Your task to perform on an android device: Is it going to rain this weekend? Image 0: 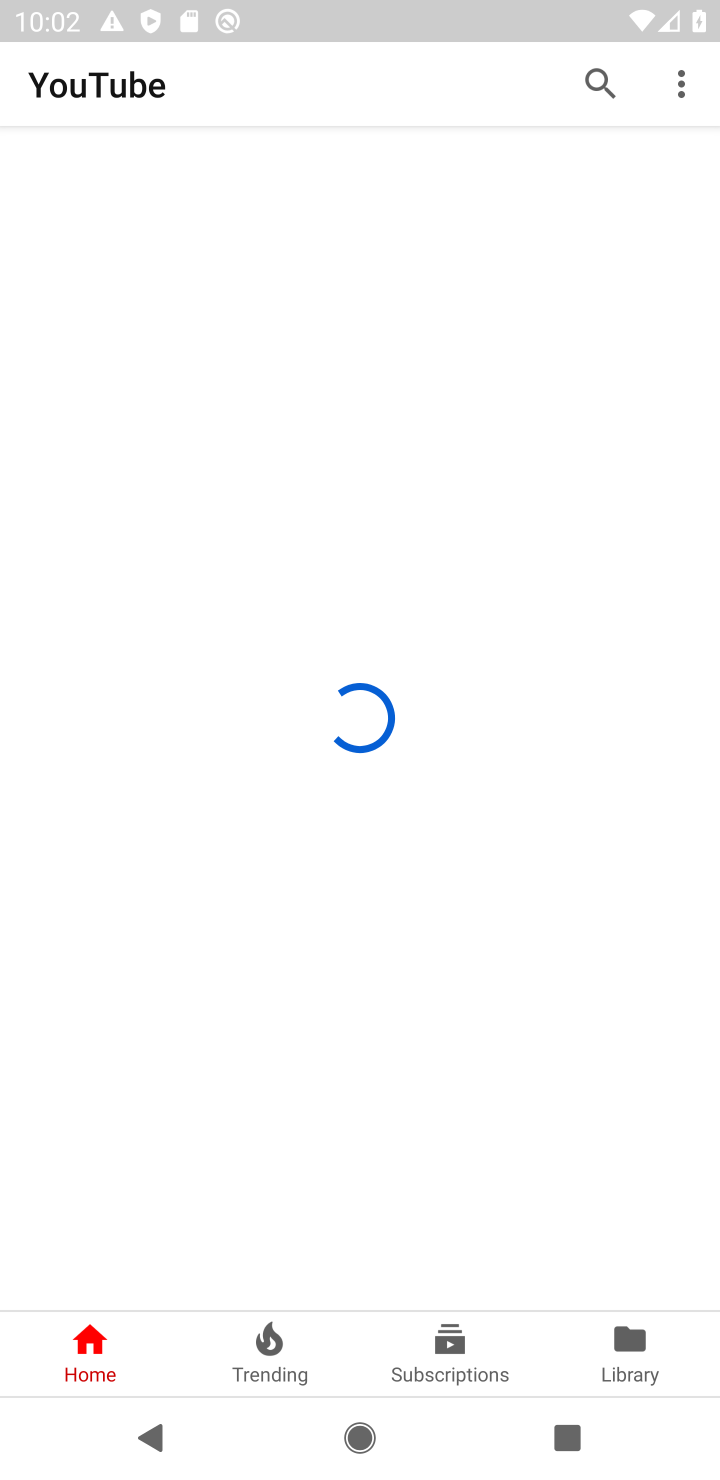
Step 0: press home button
Your task to perform on an android device: Is it going to rain this weekend? Image 1: 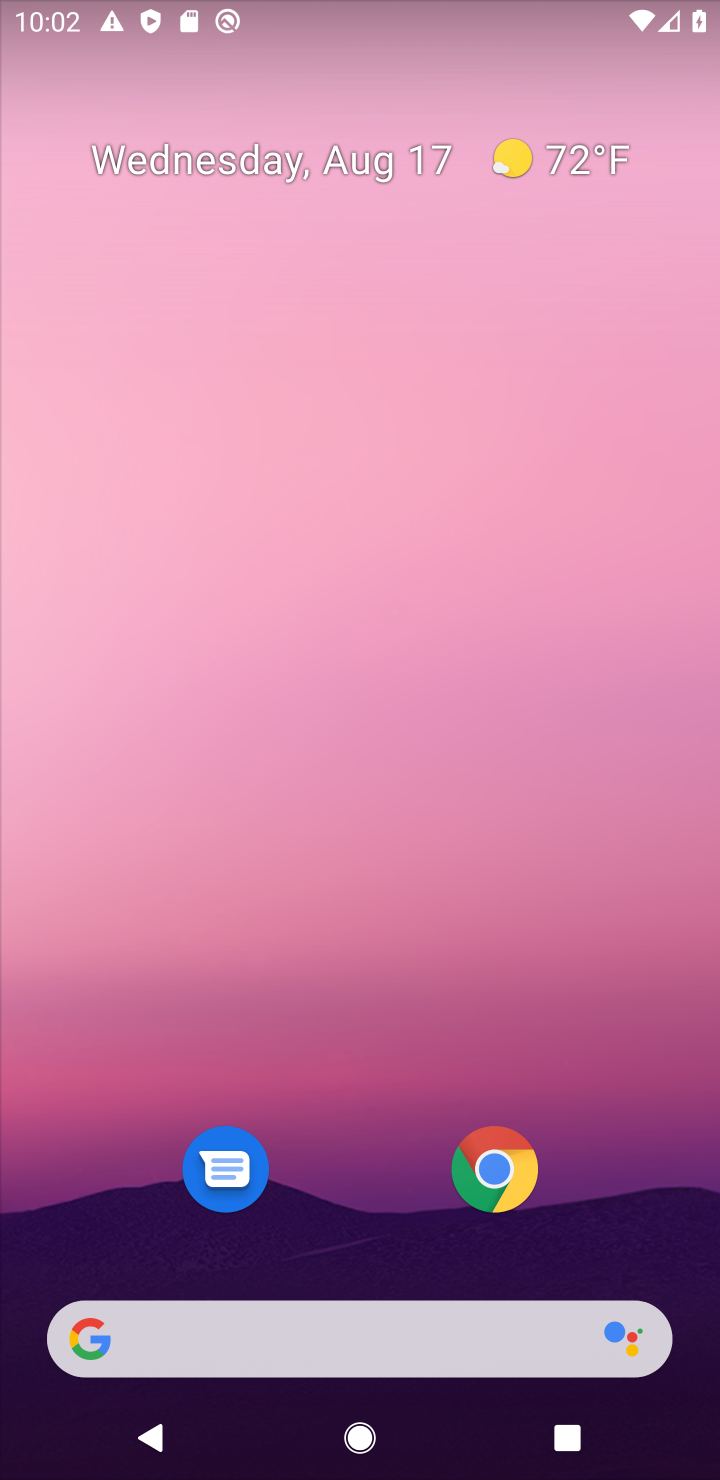
Step 1: task complete